Your task to perform on an android device: refresh tabs in the chrome app Image 0: 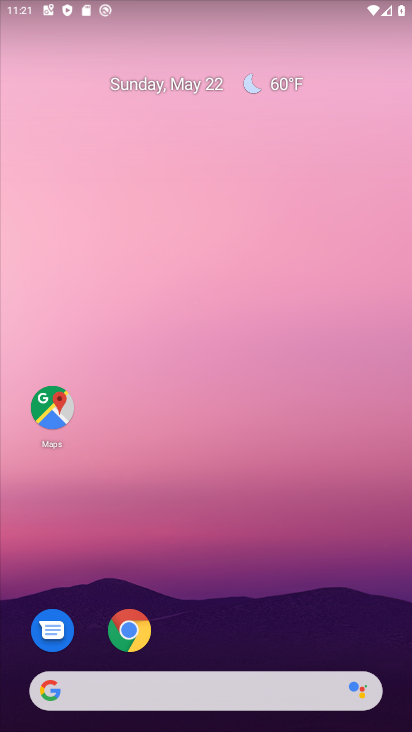
Step 0: click (130, 631)
Your task to perform on an android device: refresh tabs in the chrome app Image 1: 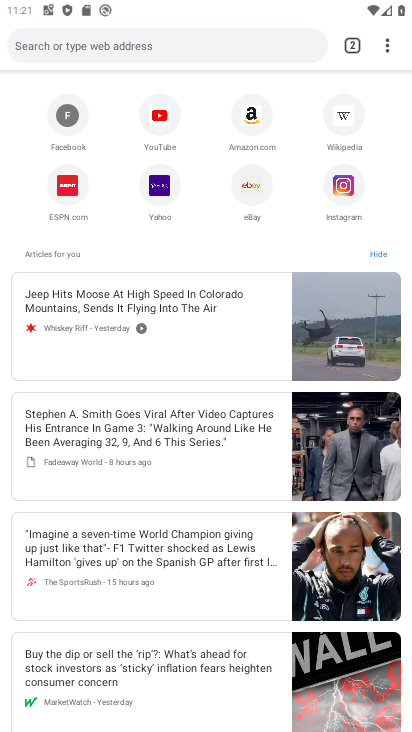
Step 1: click (388, 46)
Your task to perform on an android device: refresh tabs in the chrome app Image 2: 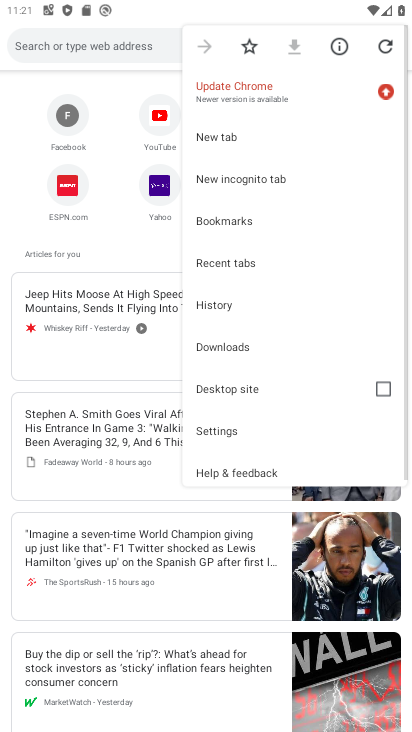
Step 2: click (388, 46)
Your task to perform on an android device: refresh tabs in the chrome app Image 3: 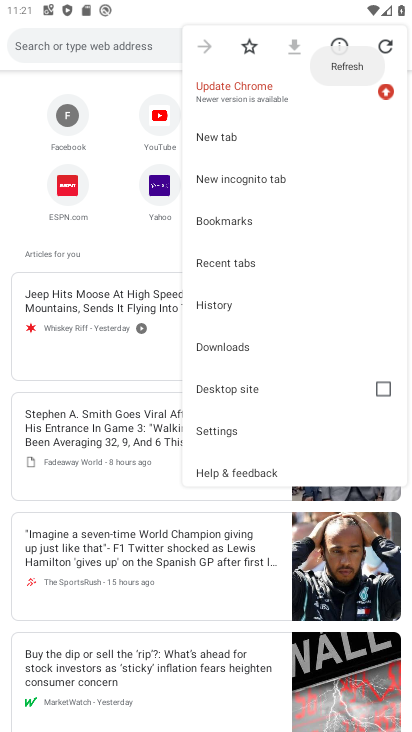
Step 3: click (388, 45)
Your task to perform on an android device: refresh tabs in the chrome app Image 4: 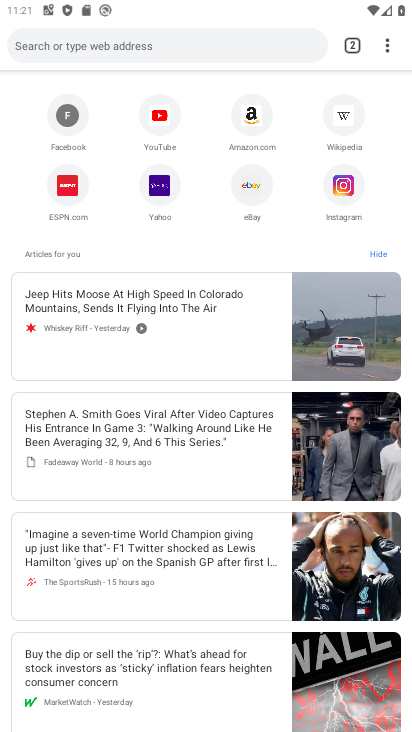
Step 4: task complete